Your task to perform on an android device: see sites visited before in the chrome app Image 0: 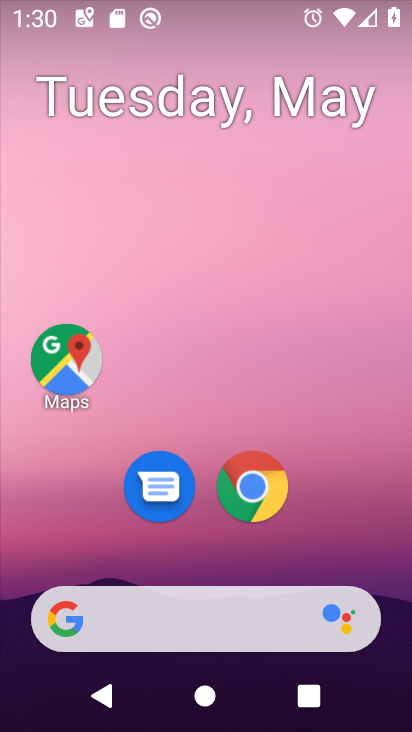
Step 0: click (236, 492)
Your task to perform on an android device: see sites visited before in the chrome app Image 1: 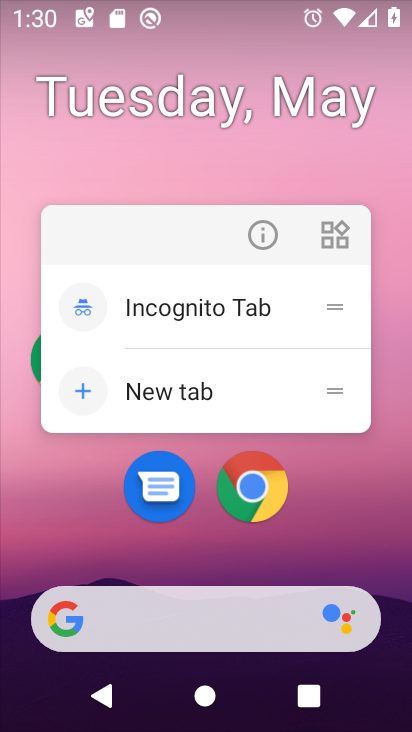
Step 1: click (341, 532)
Your task to perform on an android device: see sites visited before in the chrome app Image 2: 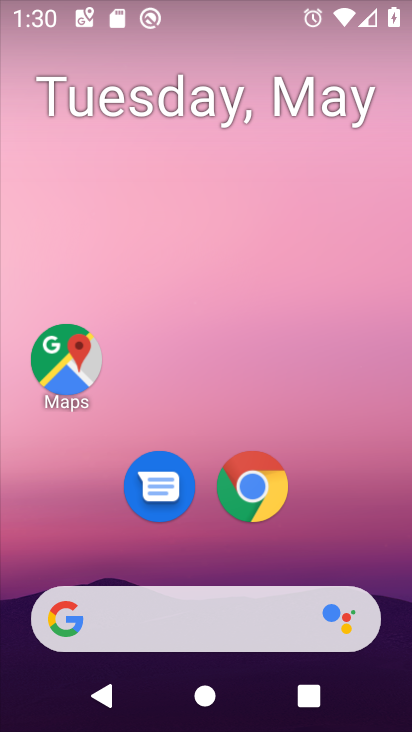
Step 2: click (249, 474)
Your task to perform on an android device: see sites visited before in the chrome app Image 3: 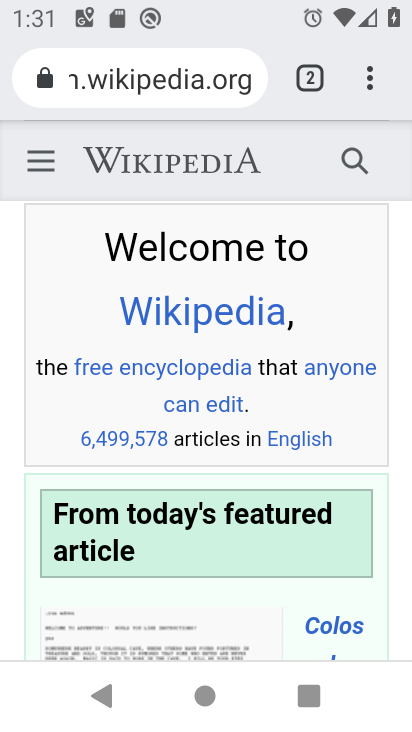
Step 3: click (379, 84)
Your task to perform on an android device: see sites visited before in the chrome app Image 4: 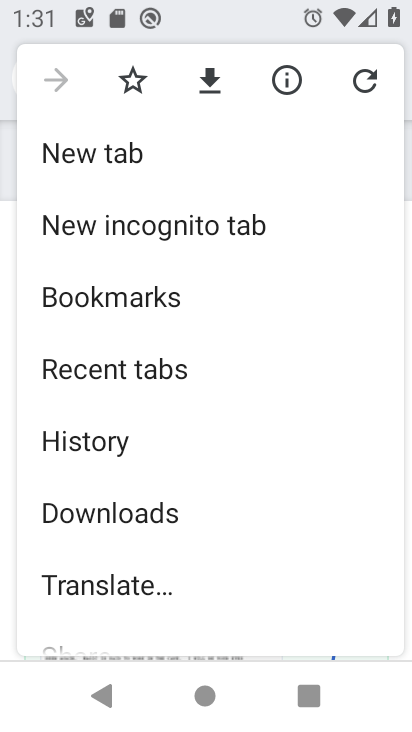
Step 4: click (110, 443)
Your task to perform on an android device: see sites visited before in the chrome app Image 5: 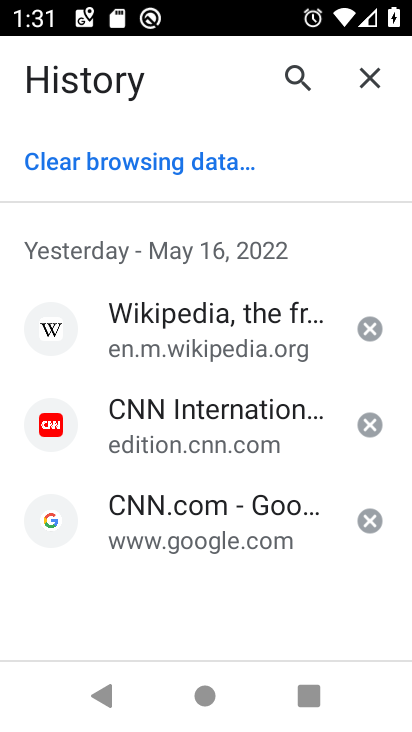
Step 5: task complete